Your task to perform on an android device: toggle wifi Image 0: 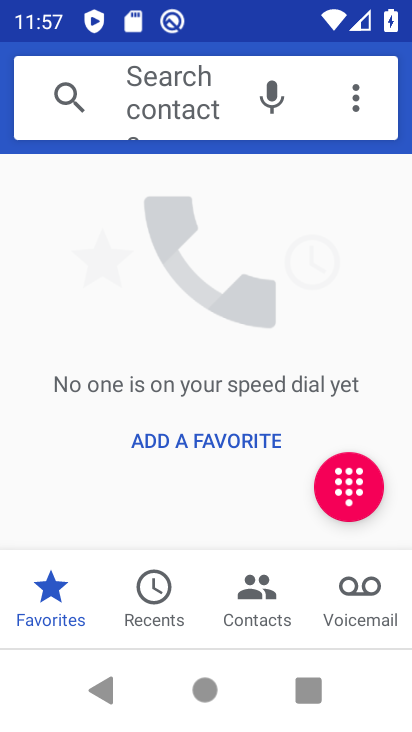
Step 0: press home button
Your task to perform on an android device: toggle wifi Image 1: 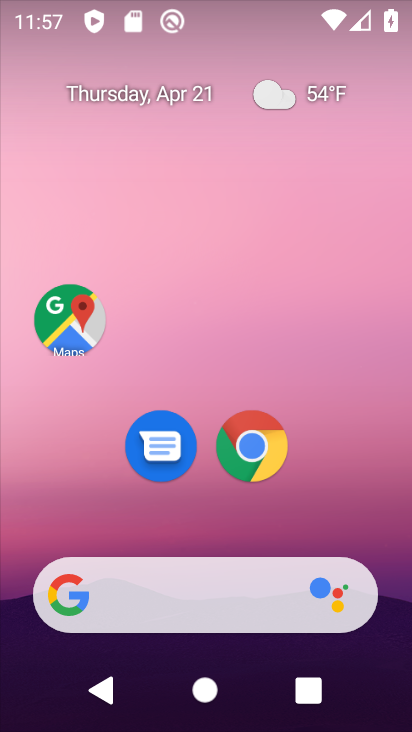
Step 1: drag from (365, 513) to (288, 152)
Your task to perform on an android device: toggle wifi Image 2: 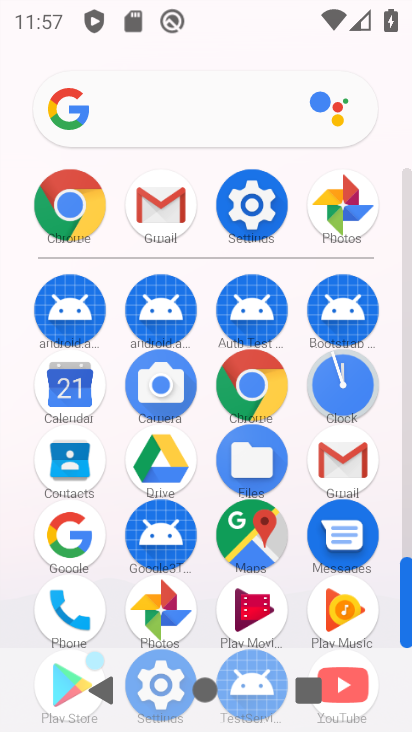
Step 2: click (265, 207)
Your task to perform on an android device: toggle wifi Image 3: 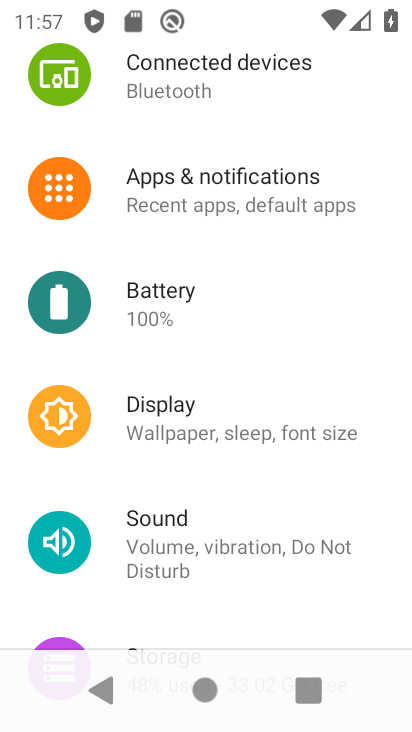
Step 3: drag from (232, 128) to (262, 616)
Your task to perform on an android device: toggle wifi Image 4: 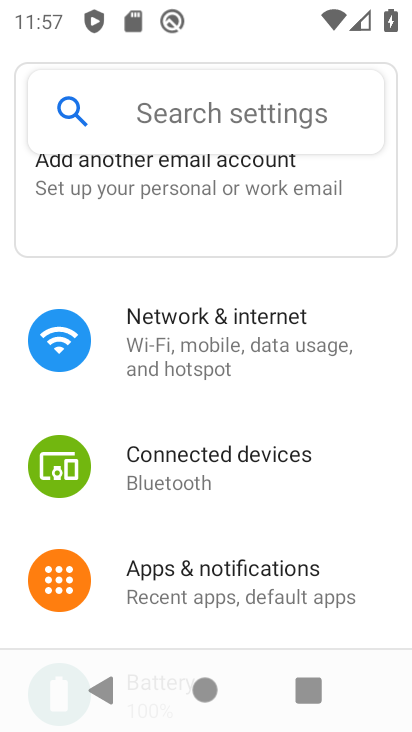
Step 4: click (259, 364)
Your task to perform on an android device: toggle wifi Image 5: 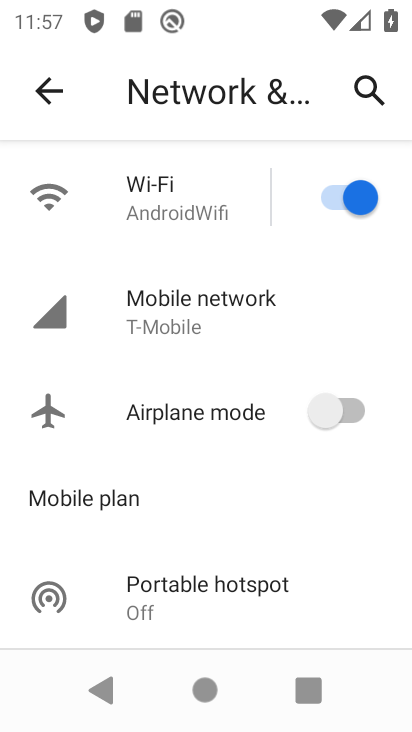
Step 5: task complete